Your task to perform on an android device: Search for the best Nike running shoes on Nike.com Image 0: 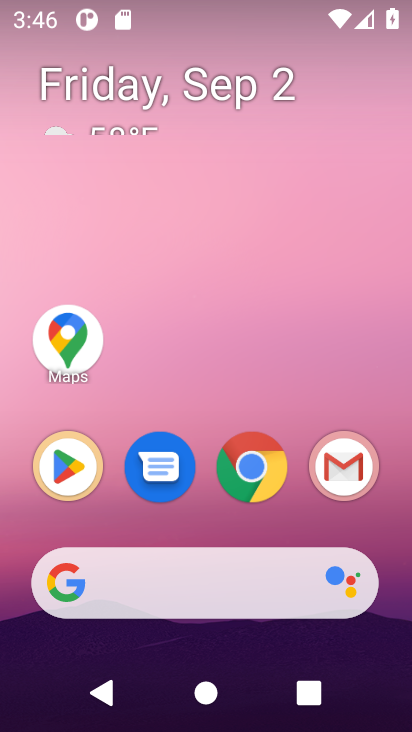
Step 0: drag from (226, 305) to (220, 116)
Your task to perform on an android device: Search for the best Nike running shoes on Nike.com Image 1: 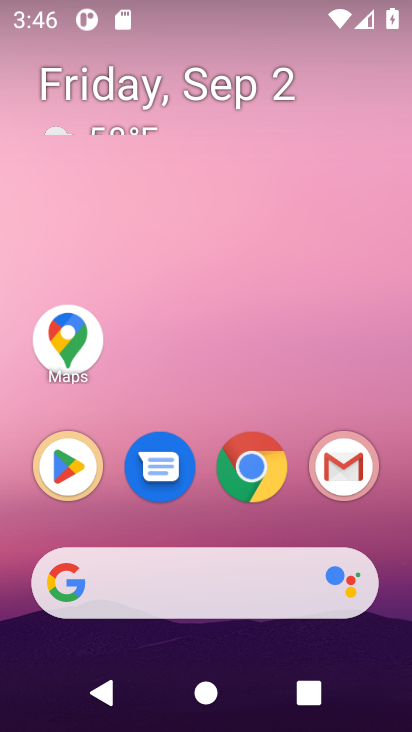
Step 1: drag from (201, 519) to (199, 111)
Your task to perform on an android device: Search for the best Nike running shoes on Nike.com Image 2: 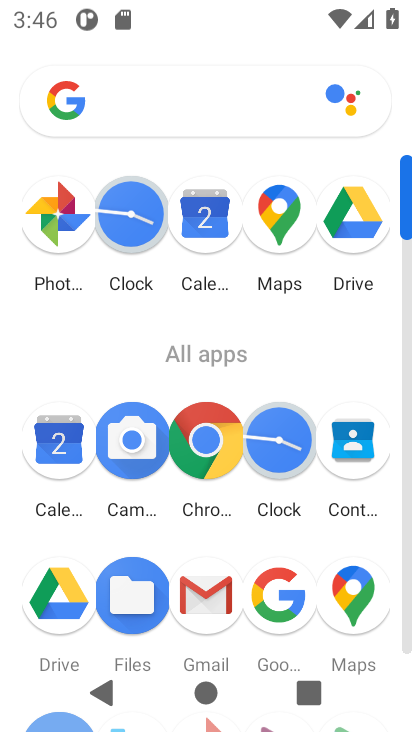
Step 2: click (270, 586)
Your task to perform on an android device: Search for the best Nike running shoes on Nike.com Image 3: 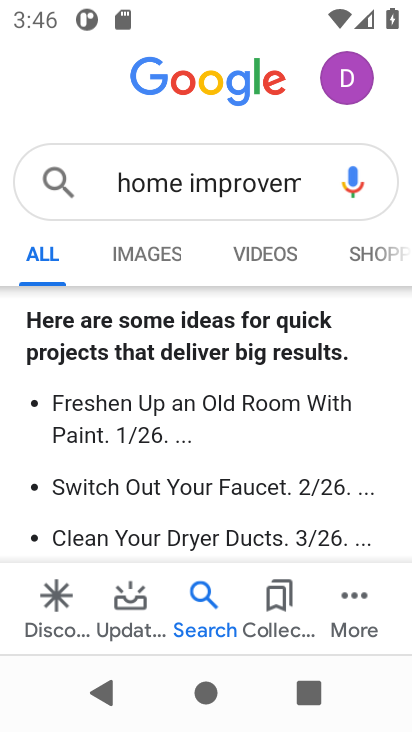
Step 3: click (315, 177)
Your task to perform on an android device: Search for the best Nike running shoes on Nike.com Image 4: 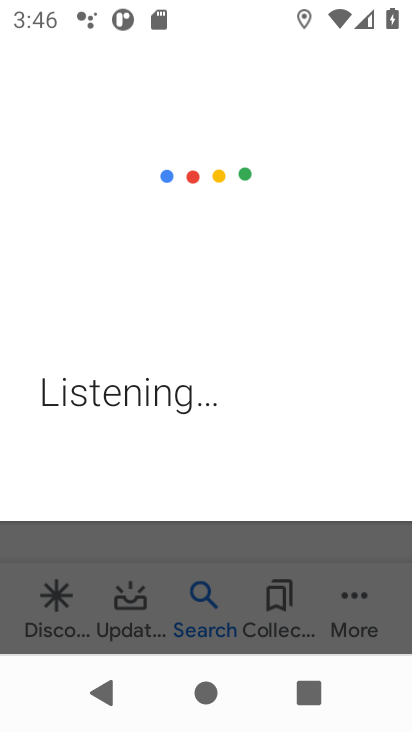
Step 4: press back button
Your task to perform on an android device: Search for the best Nike running shoes on Nike.com Image 5: 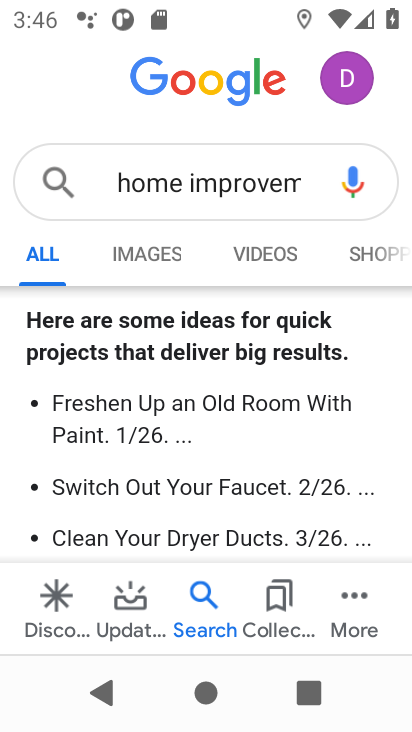
Step 5: click (283, 176)
Your task to perform on an android device: Search for the best Nike running shoes on Nike.com Image 6: 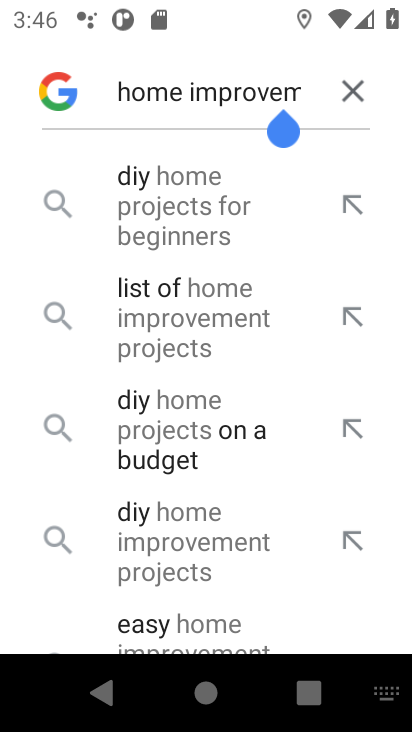
Step 6: click (351, 98)
Your task to perform on an android device: Search for the best Nike running shoes on Nike.com Image 7: 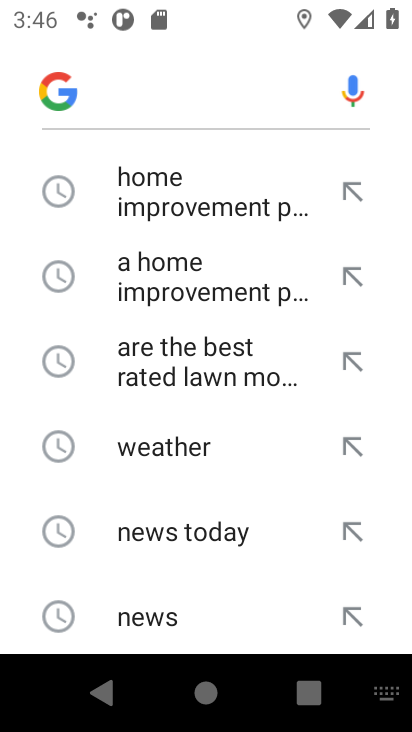
Step 7: click (161, 57)
Your task to perform on an android device: Search for the best Nike running shoes on Nike.com Image 8: 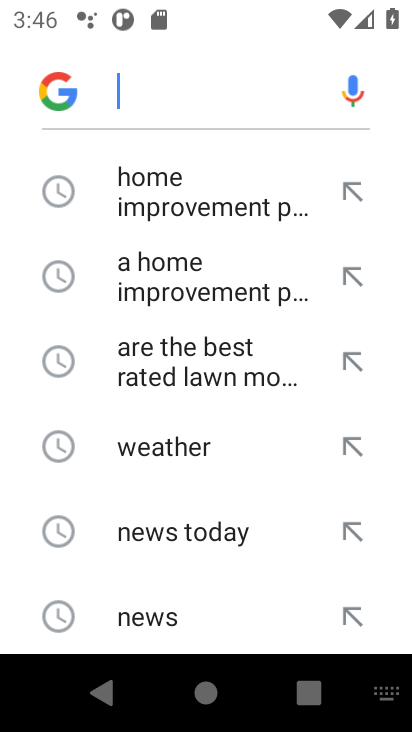
Step 8: type " the best Nike running shoes on Nike.com "
Your task to perform on an android device: Search for the best Nike running shoes on Nike.com Image 9: 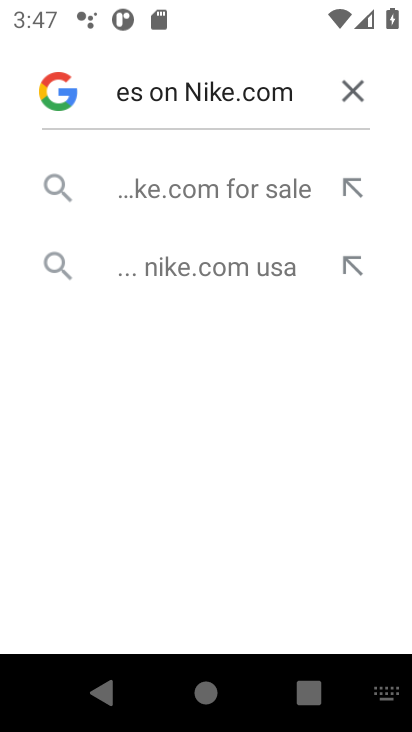
Step 9: click (212, 277)
Your task to perform on an android device: Search for the best Nike running shoes on Nike.com Image 10: 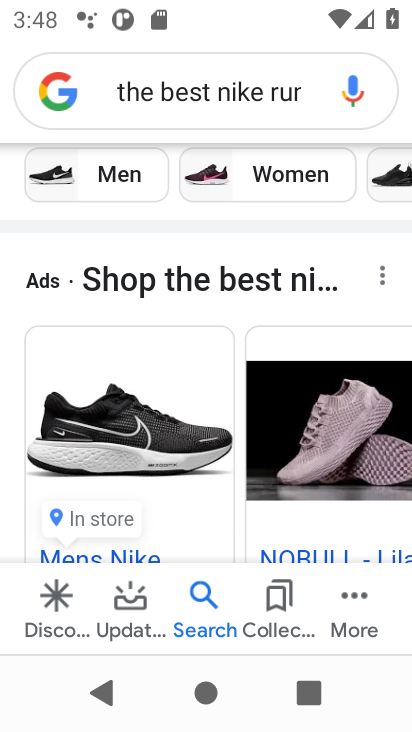
Step 10: task complete